Your task to perform on an android device: toggle pop-ups in chrome Image 0: 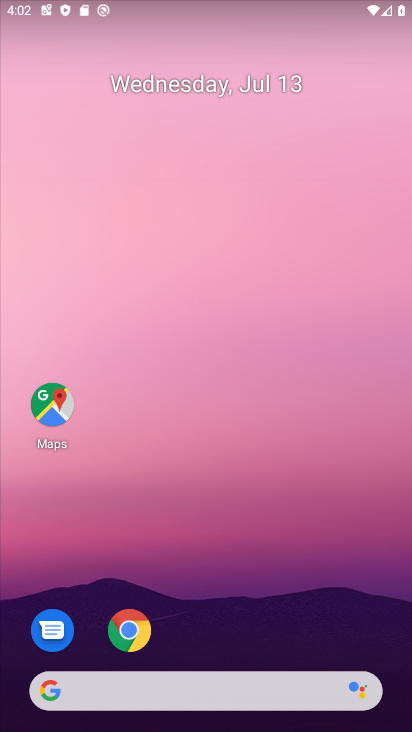
Step 0: drag from (352, 623) to (409, 205)
Your task to perform on an android device: toggle pop-ups in chrome Image 1: 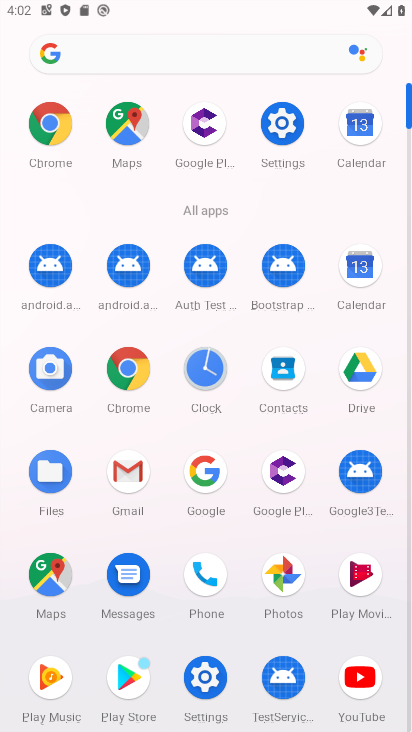
Step 1: click (138, 367)
Your task to perform on an android device: toggle pop-ups in chrome Image 2: 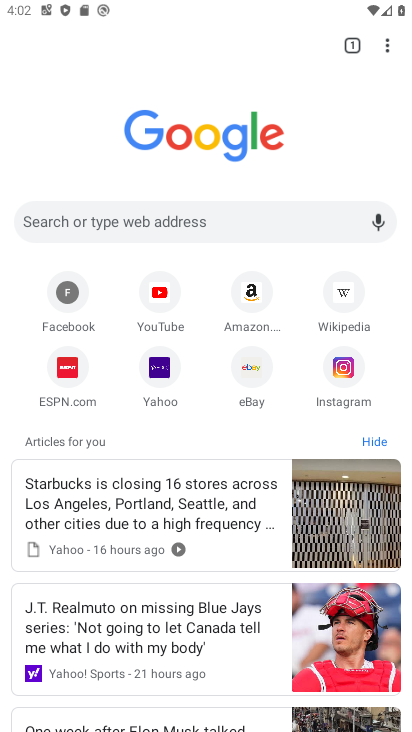
Step 2: drag from (390, 40) to (252, 385)
Your task to perform on an android device: toggle pop-ups in chrome Image 3: 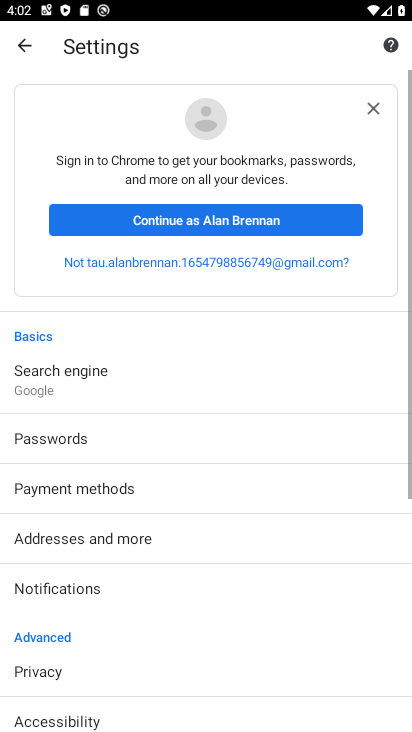
Step 3: drag from (65, 654) to (126, 186)
Your task to perform on an android device: toggle pop-ups in chrome Image 4: 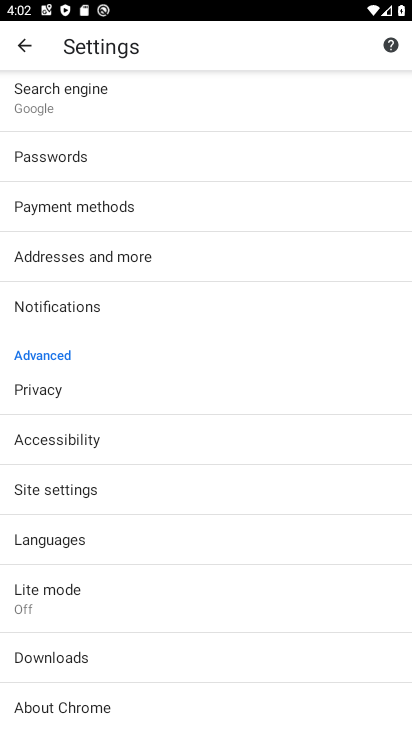
Step 4: click (59, 497)
Your task to perform on an android device: toggle pop-ups in chrome Image 5: 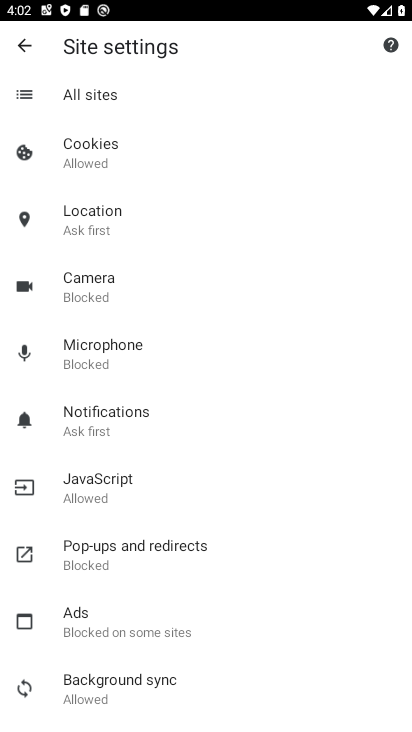
Step 5: click (110, 547)
Your task to perform on an android device: toggle pop-ups in chrome Image 6: 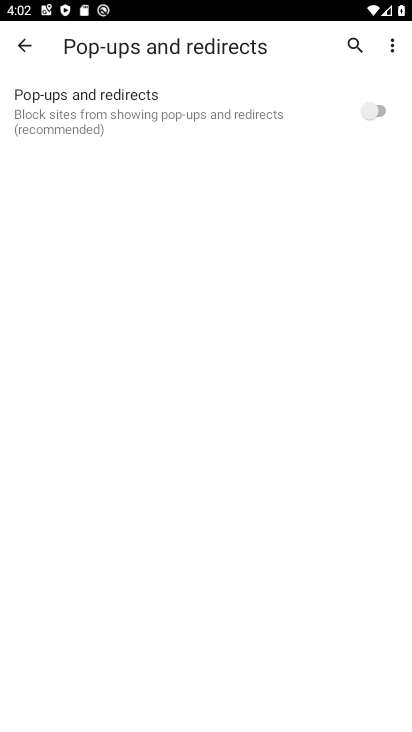
Step 6: click (384, 112)
Your task to perform on an android device: toggle pop-ups in chrome Image 7: 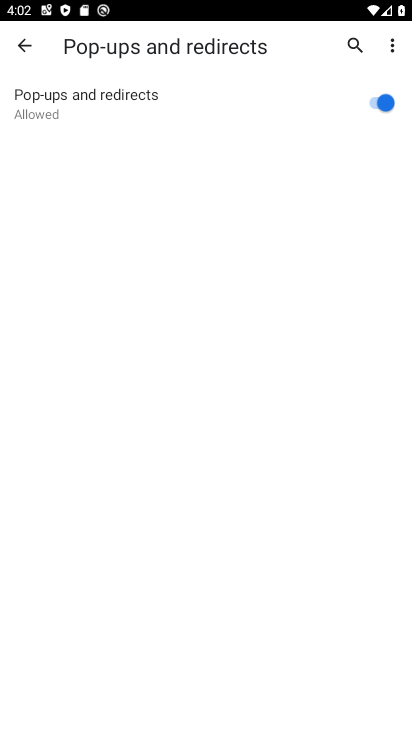
Step 7: task complete